Your task to perform on an android device: What is the news today? Image 0: 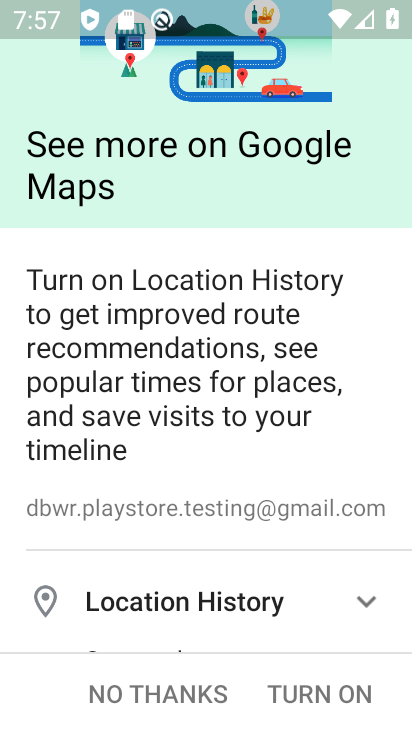
Step 0: press home button
Your task to perform on an android device: What is the news today? Image 1: 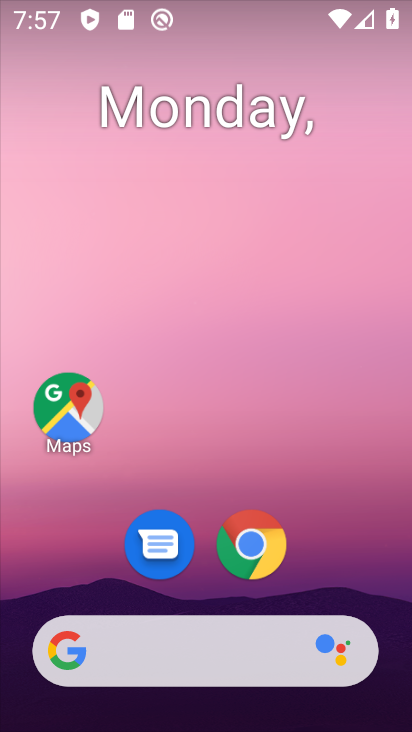
Step 1: click (208, 636)
Your task to perform on an android device: What is the news today? Image 2: 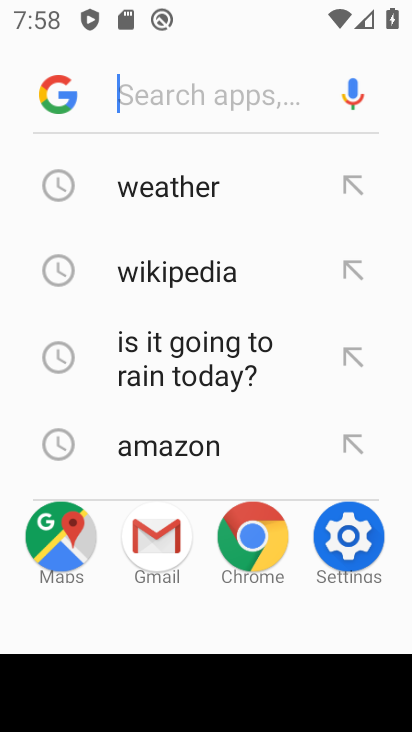
Step 2: click (176, 92)
Your task to perform on an android device: What is the news today? Image 3: 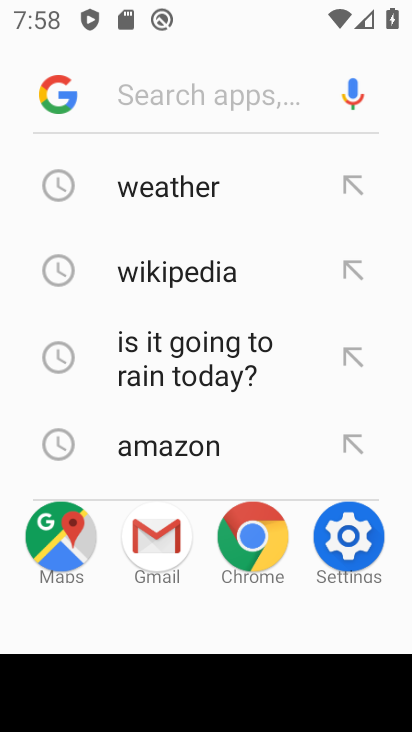
Step 3: type "news"
Your task to perform on an android device: What is the news today? Image 4: 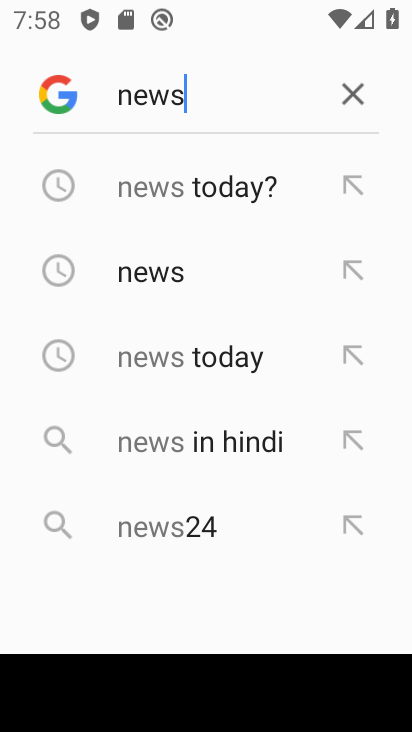
Step 4: click (203, 183)
Your task to perform on an android device: What is the news today? Image 5: 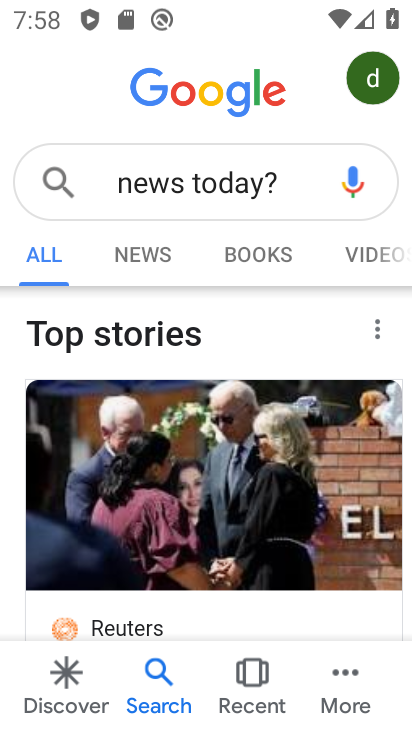
Step 5: click (132, 271)
Your task to perform on an android device: What is the news today? Image 6: 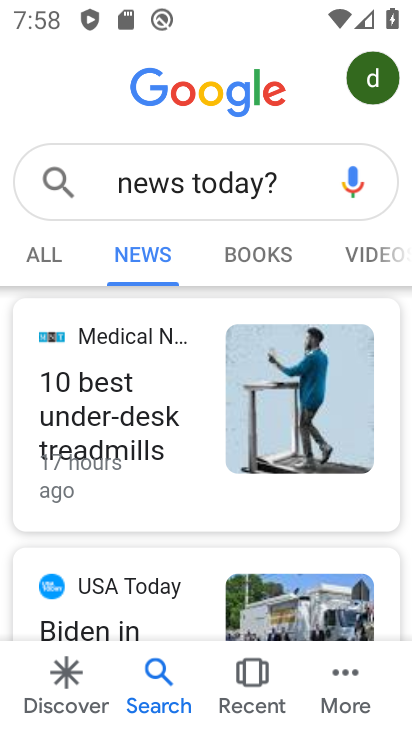
Step 6: task complete